Your task to perform on an android device: Add apple airpods to the cart on bestbuy, then select checkout. Image 0: 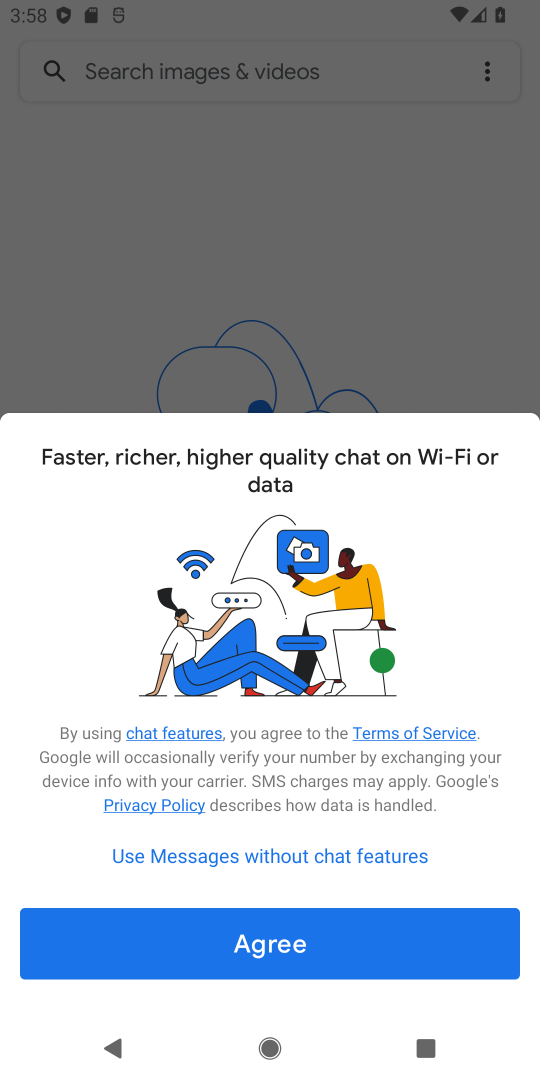
Step 0: press home button
Your task to perform on an android device: Add apple airpods to the cart on bestbuy, then select checkout. Image 1: 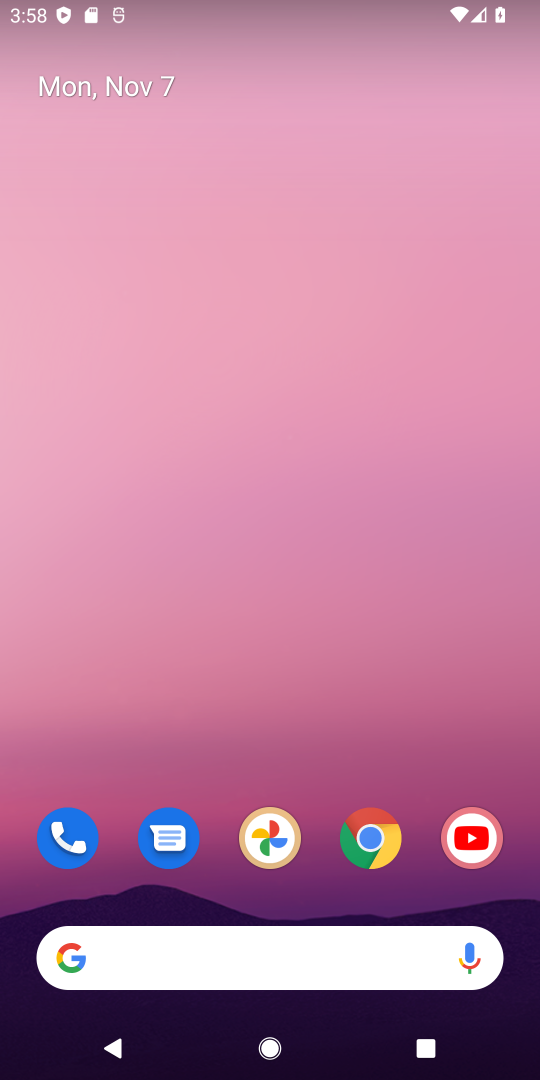
Step 1: click (355, 850)
Your task to perform on an android device: Add apple airpods to the cart on bestbuy, then select checkout. Image 2: 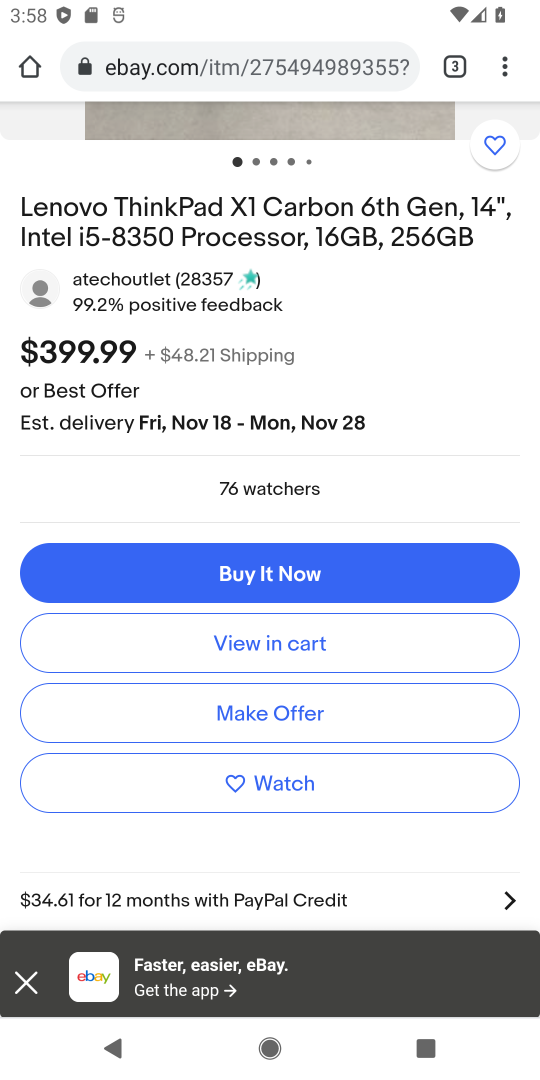
Step 2: click (458, 73)
Your task to perform on an android device: Add apple airpods to the cart on bestbuy, then select checkout. Image 3: 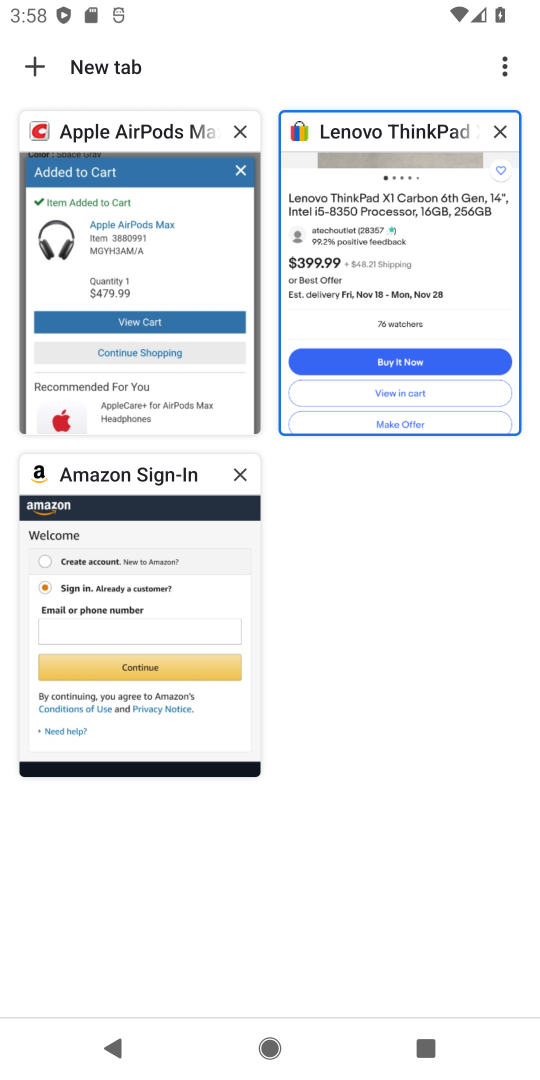
Step 3: click (37, 59)
Your task to perform on an android device: Add apple airpods to the cart on bestbuy, then select checkout. Image 4: 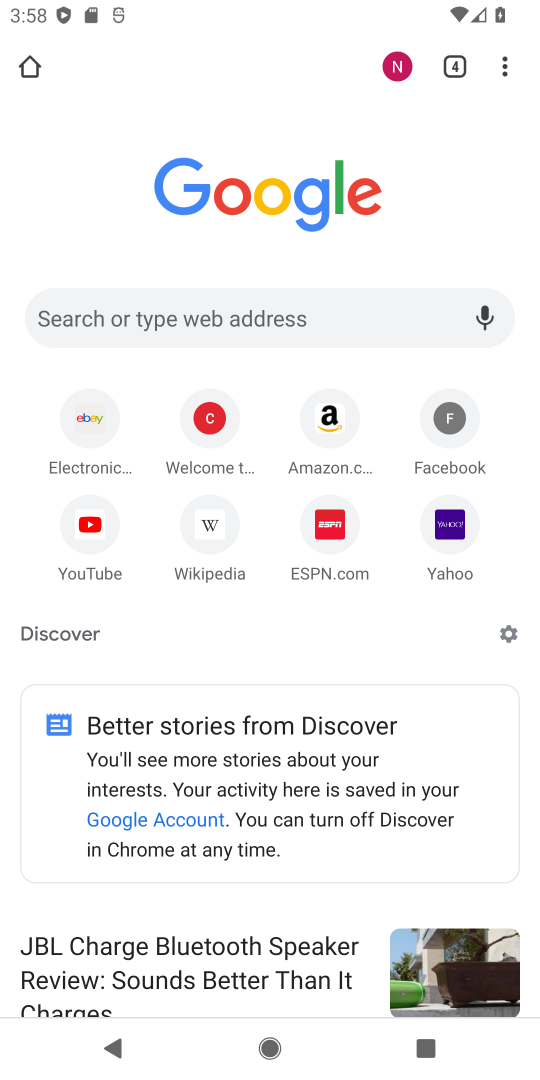
Step 4: click (242, 319)
Your task to perform on an android device: Add apple airpods to the cart on bestbuy, then select checkout. Image 5: 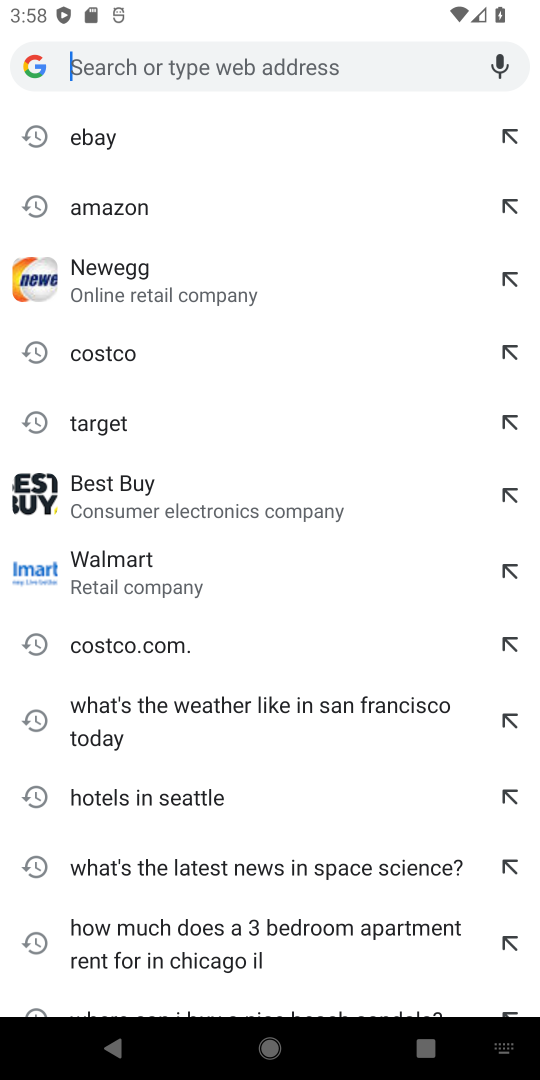
Step 5: click (87, 509)
Your task to perform on an android device: Add apple airpods to the cart on bestbuy, then select checkout. Image 6: 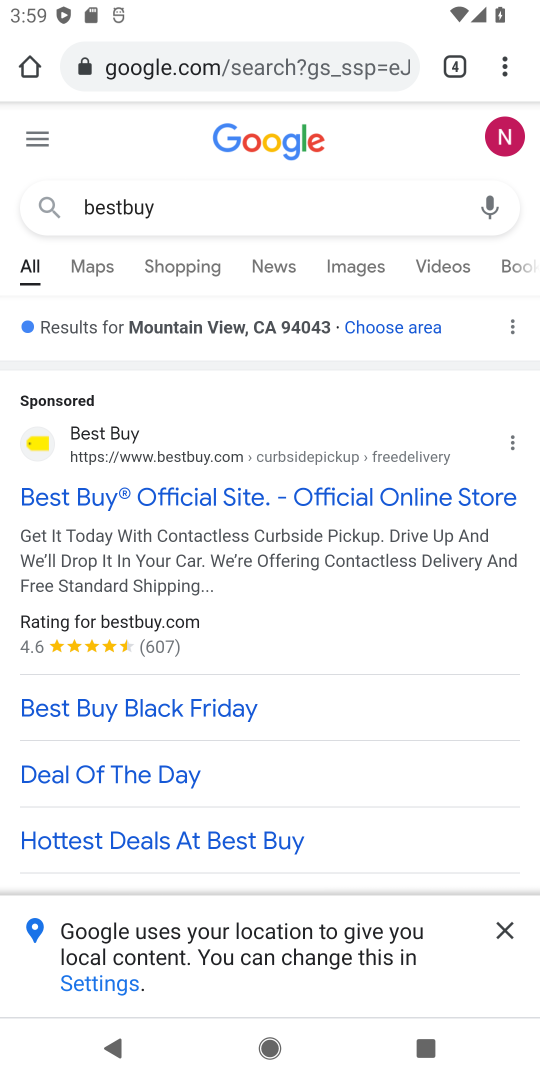
Step 6: drag from (312, 677) to (423, 43)
Your task to perform on an android device: Add apple airpods to the cart on bestbuy, then select checkout. Image 7: 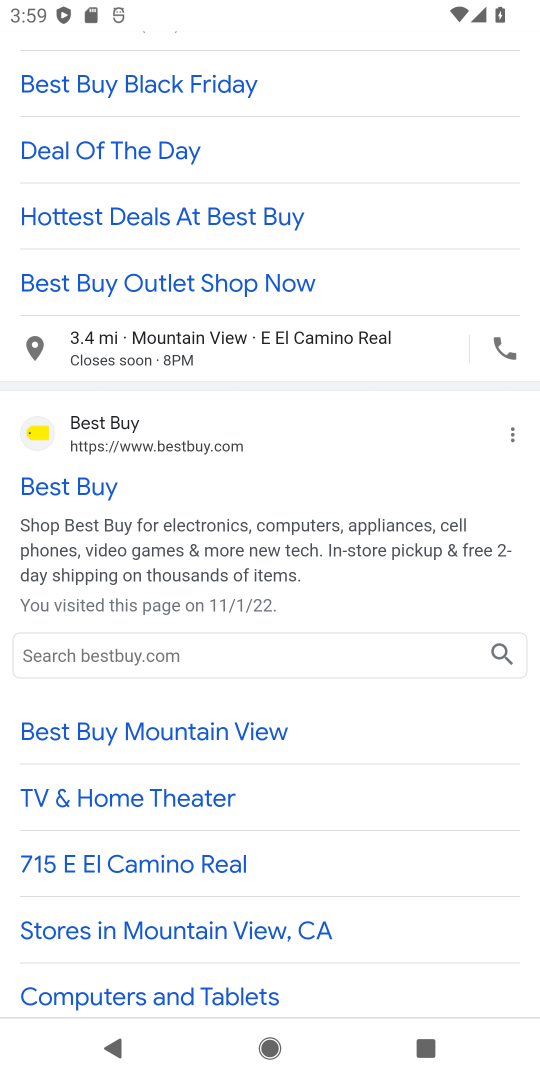
Step 7: click (61, 655)
Your task to perform on an android device: Add apple airpods to the cart on bestbuy, then select checkout. Image 8: 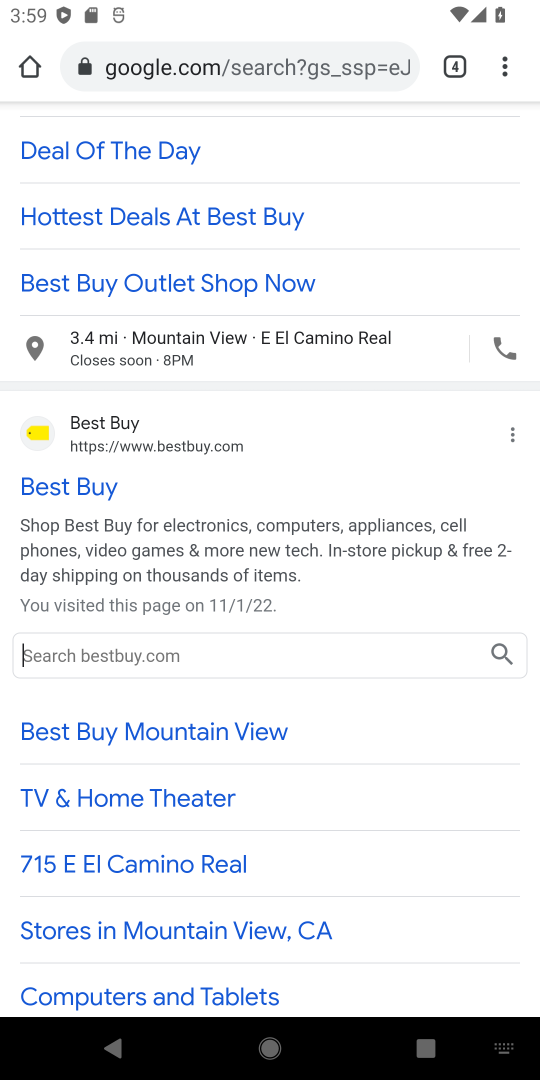
Step 8: type "apple airpods"
Your task to perform on an android device: Add apple airpods to the cart on bestbuy, then select checkout. Image 9: 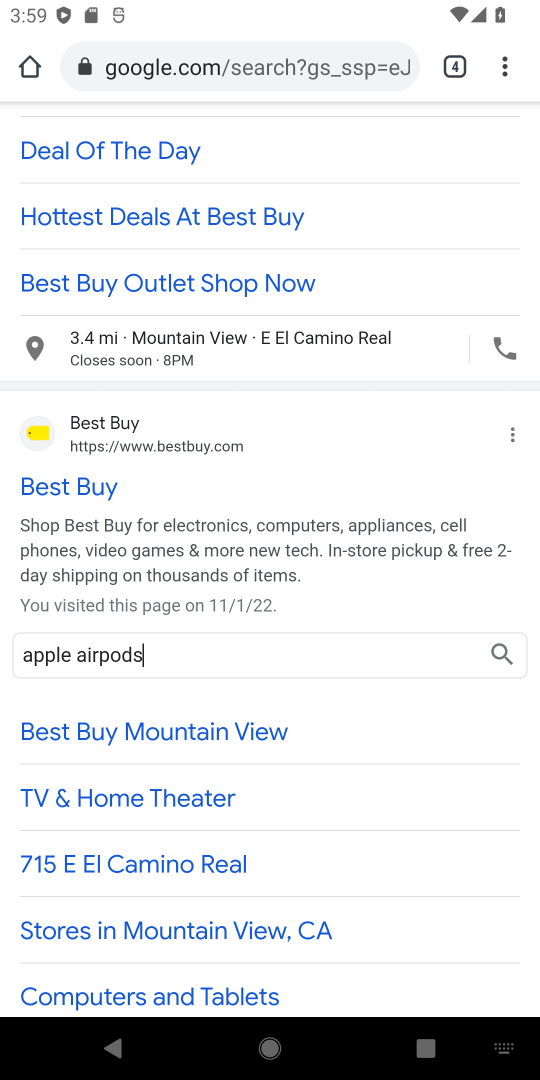
Step 9: click (499, 654)
Your task to perform on an android device: Add apple airpods to the cart on bestbuy, then select checkout. Image 10: 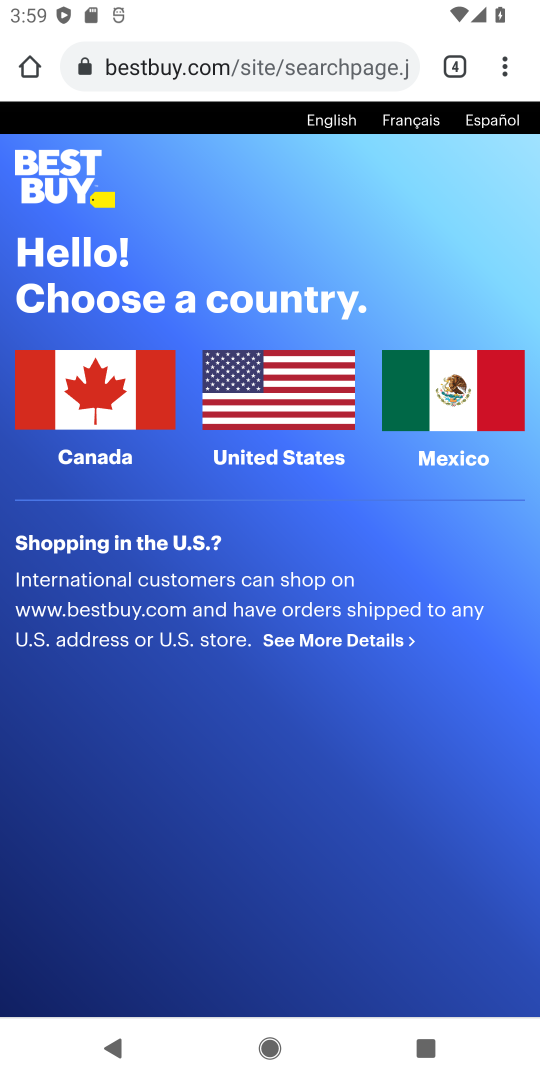
Step 10: click (282, 400)
Your task to perform on an android device: Add apple airpods to the cart on bestbuy, then select checkout. Image 11: 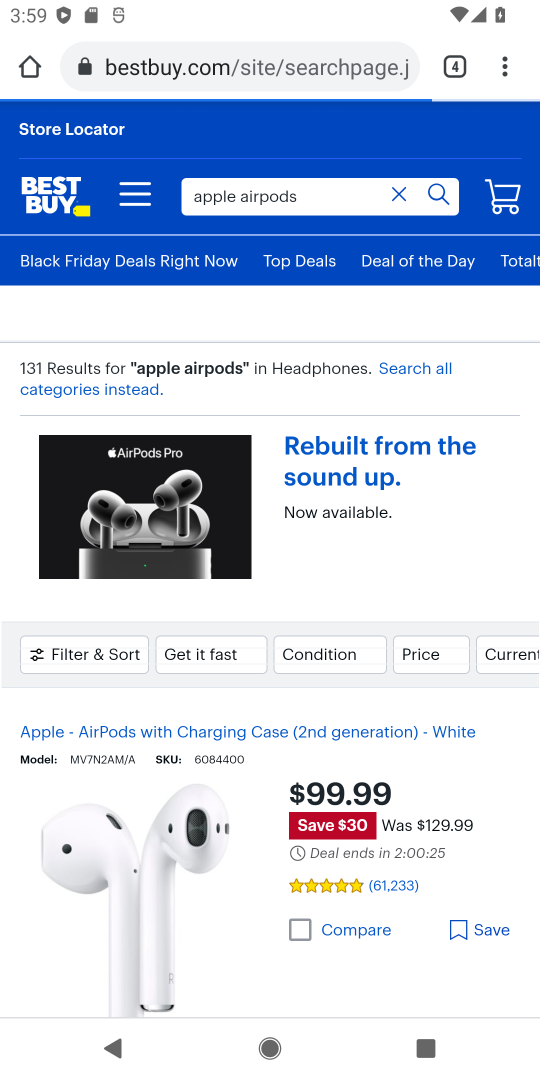
Step 11: drag from (404, 958) to (427, 582)
Your task to perform on an android device: Add apple airpods to the cart on bestbuy, then select checkout. Image 12: 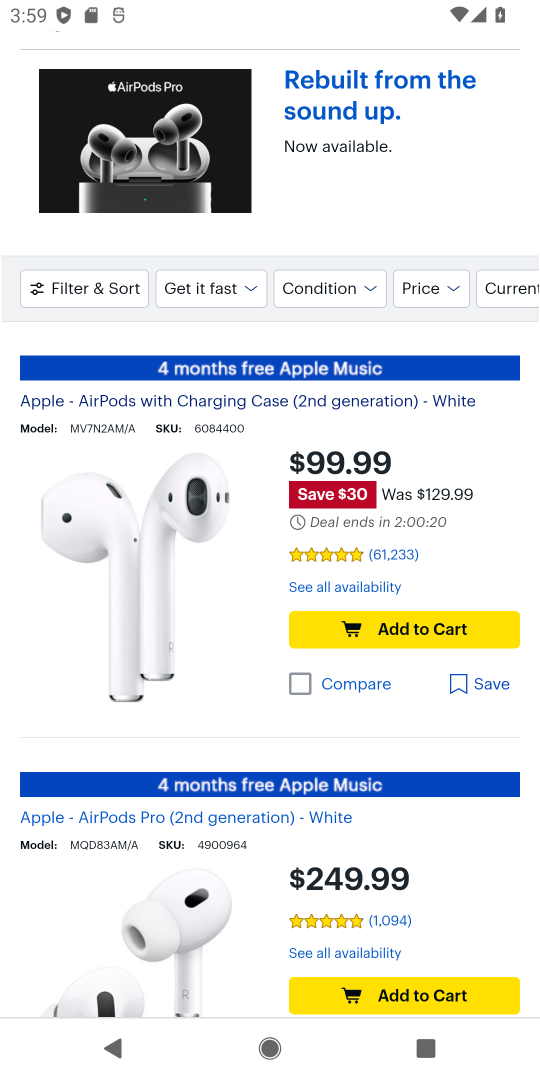
Step 12: click (407, 621)
Your task to perform on an android device: Add apple airpods to the cart on bestbuy, then select checkout. Image 13: 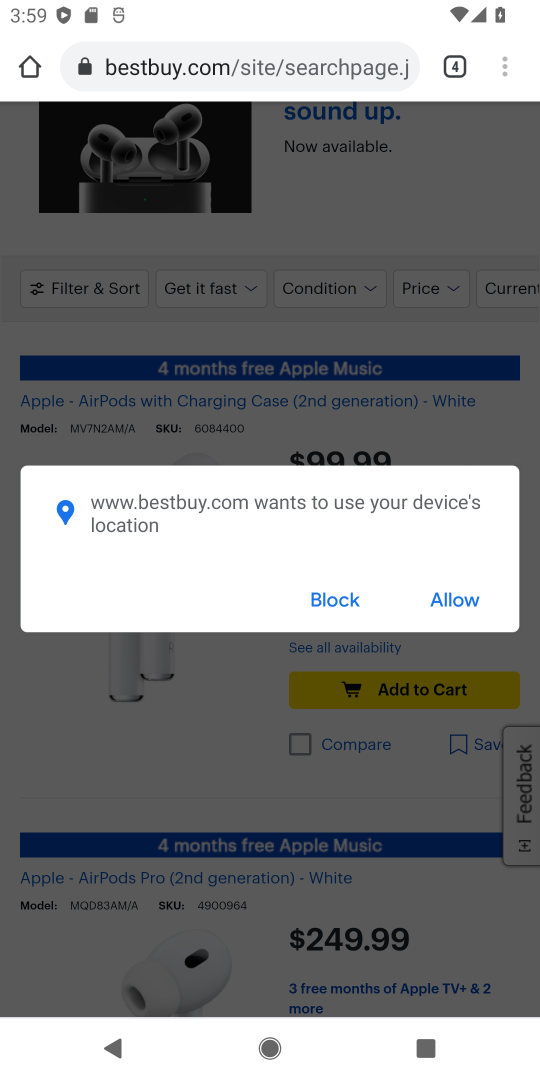
Step 13: click (326, 593)
Your task to perform on an android device: Add apple airpods to the cart on bestbuy, then select checkout. Image 14: 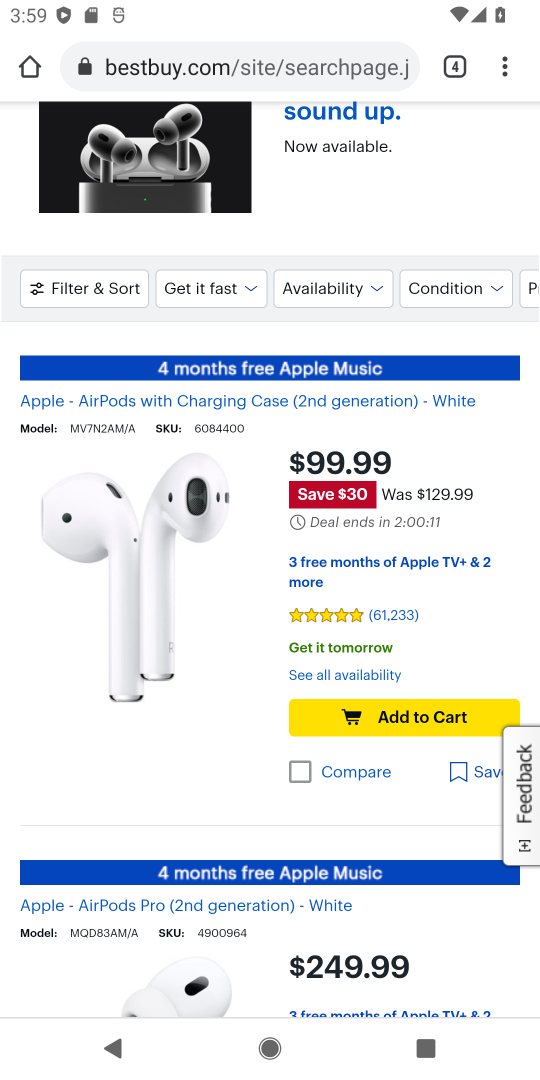
Step 14: click (381, 721)
Your task to perform on an android device: Add apple airpods to the cart on bestbuy, then select checkout. Image 15: 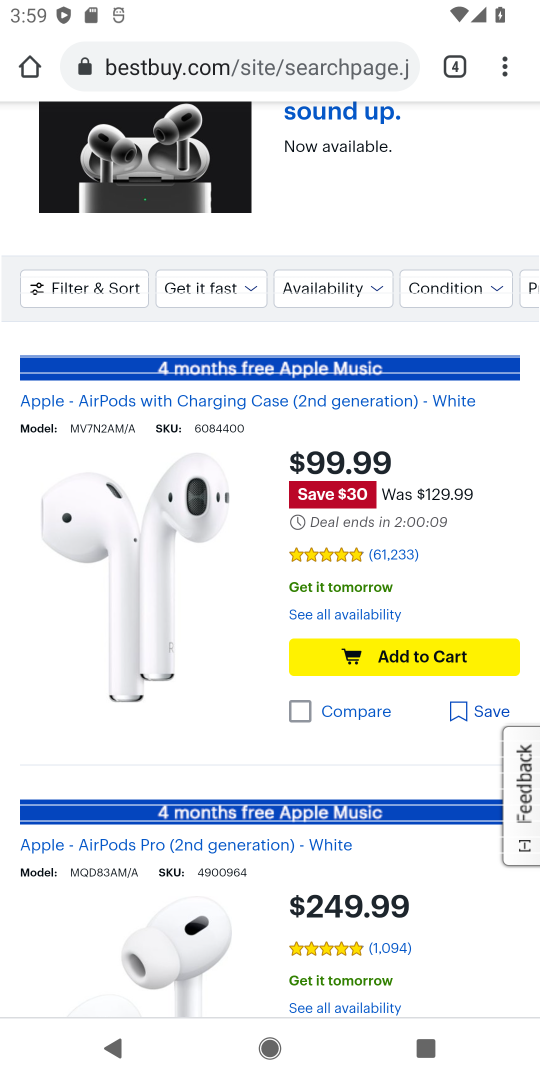
Step 15: drag from (418, 149) to (425, 976)
Your task to perform on an android device: Add apple airpods to the cart on bestbuy, then select checkout. Image 16: 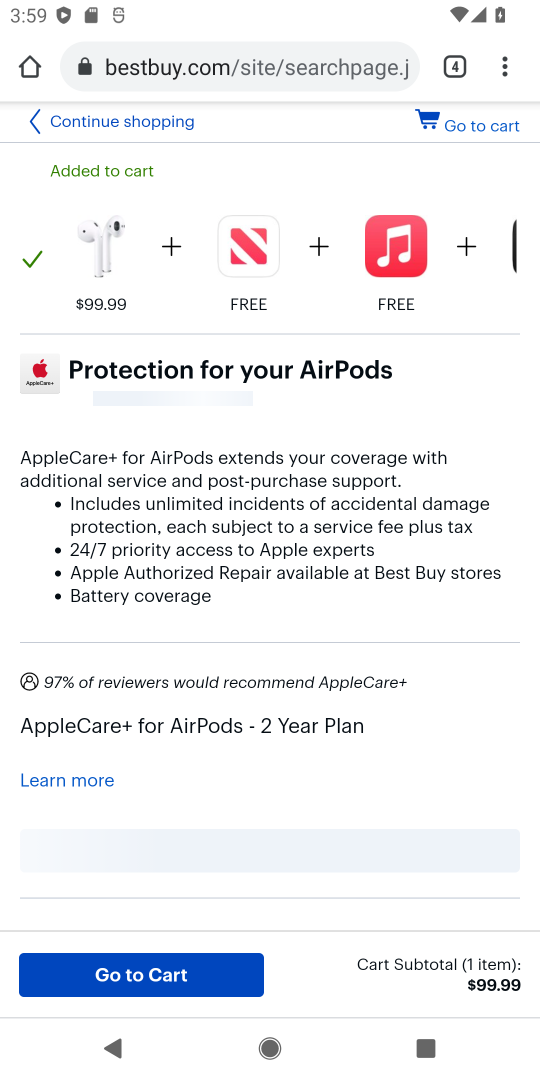
Step 16: click (476, 132)
Your task to perform on an android device: Add apple airpods to the cart on bestbuy, then select checkout. Image 17: 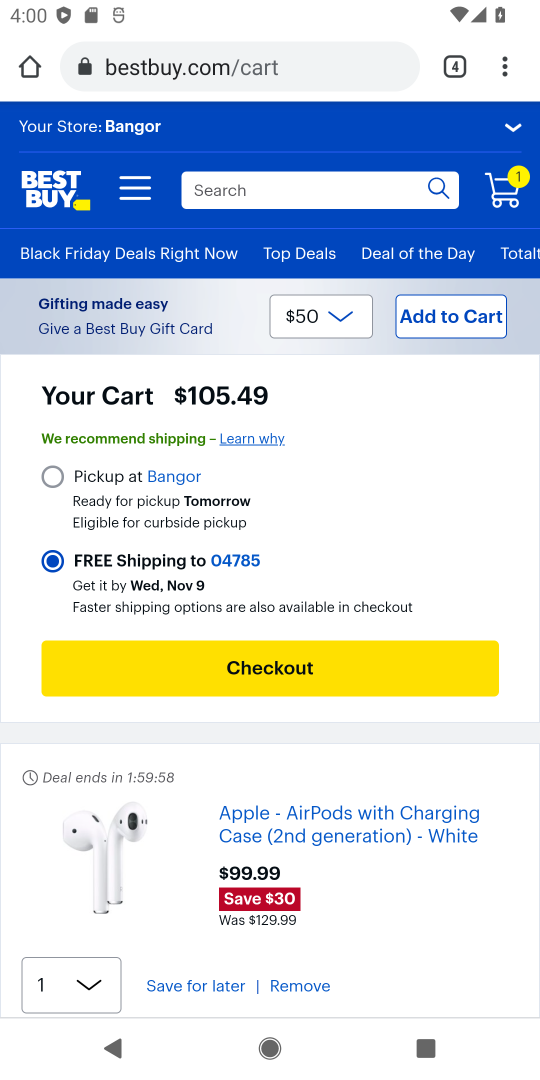
Step 17: click (349, 666)
Your task to perform on an android device: Add apple airpods to the cart on bestbuy, then select checkout. Image 18: 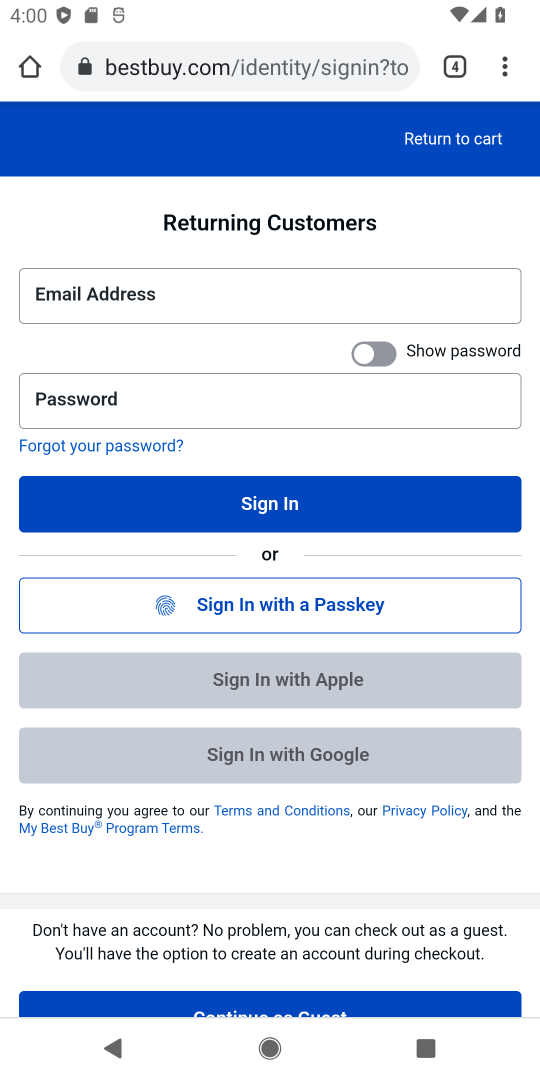
Step 18: task complete